Your task to perform on an android device: open app "ColorNote Notepad Notes" Image 0: 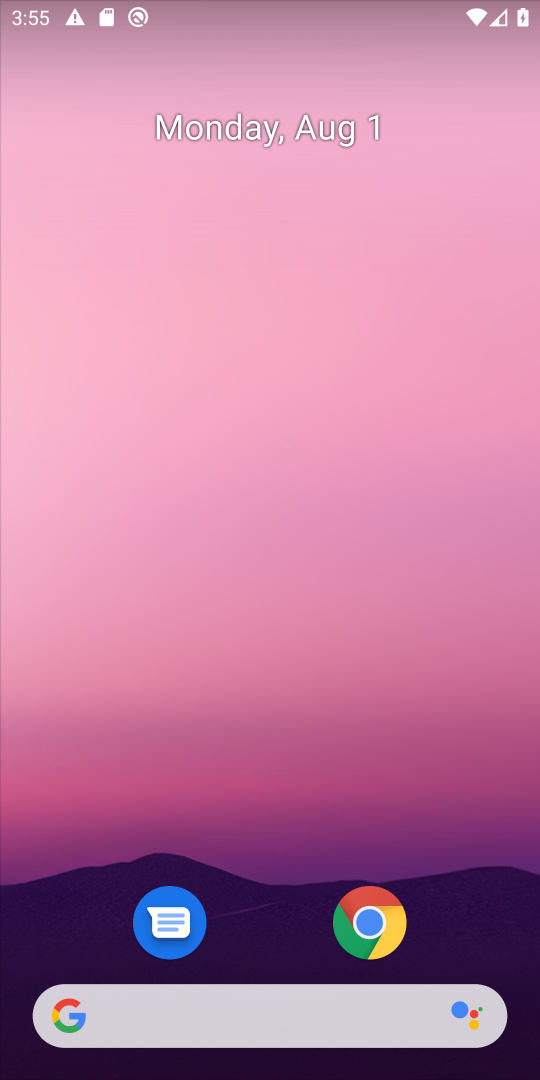
Step 0: drag from (300, 940) to (298, 25)
Your task to perform on an android device: open app "ColorNote Notepad Notes" Image 1: 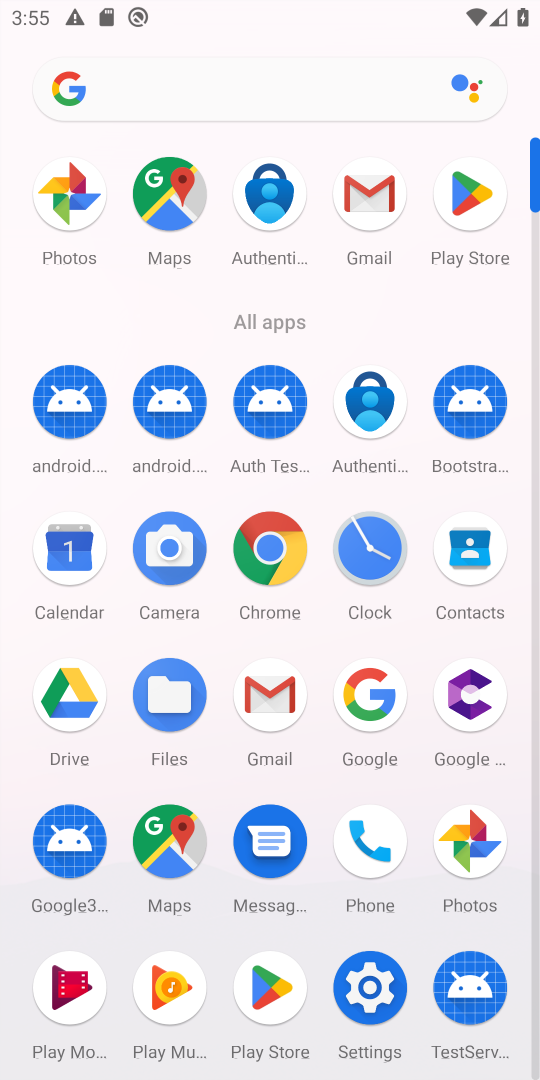
Step 1: click (467, 204)
Your task to perform on an android device: open app "ColorNote Notepad Notes" Image 2: 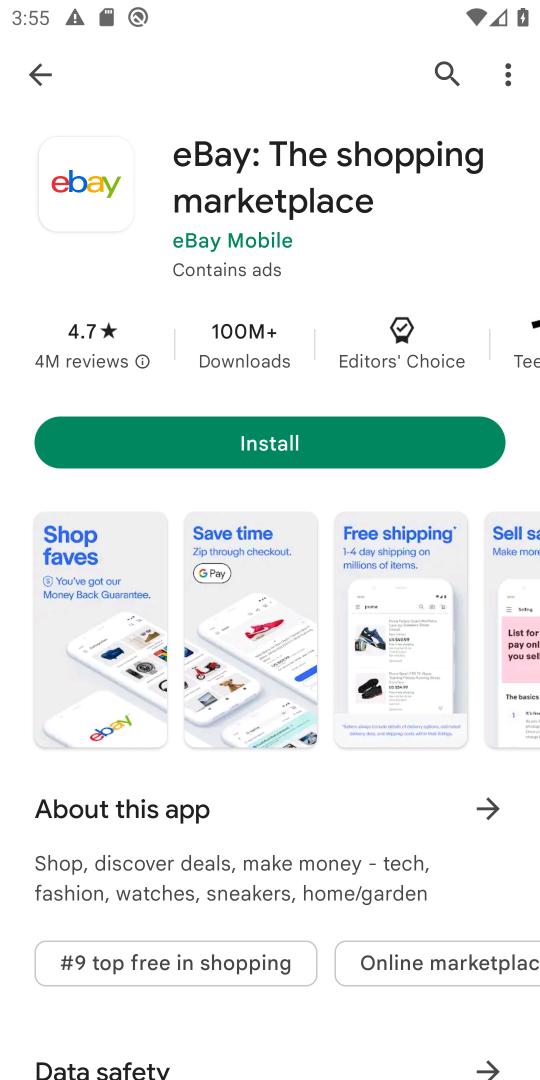
Step 2: click (443, 64)
Your task to perform on an android device: open app "ColorNote Notepad Notes" Image 3: 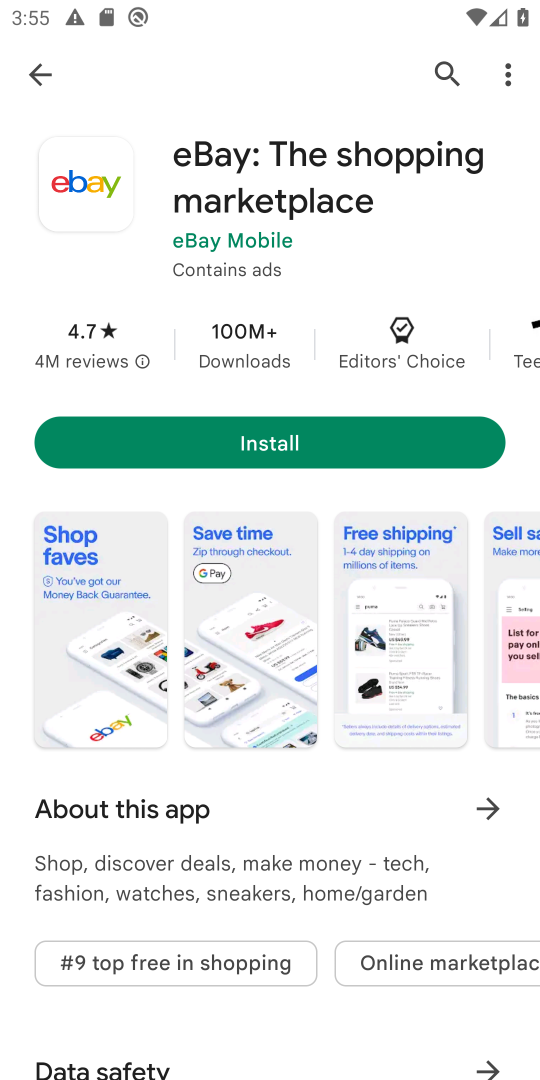
Step 3: click (443, 71)
Your task to perform on an android device: open app "ColorNote Notepad Notes" Image 4: 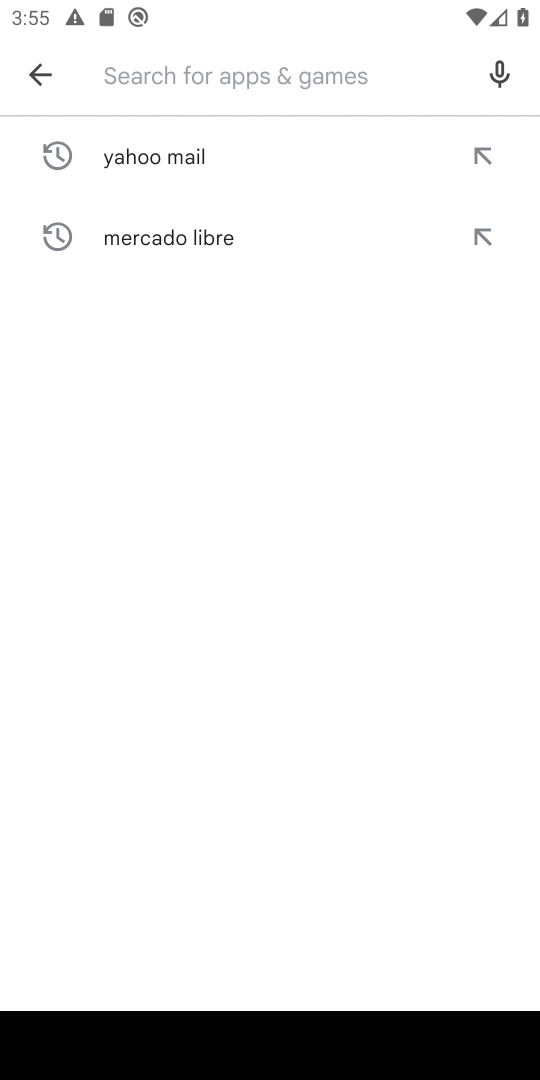
Step 4: click (320, 84)
Your task to perform on an android device: open app "ColorNote Notepad Notes" Image 5: 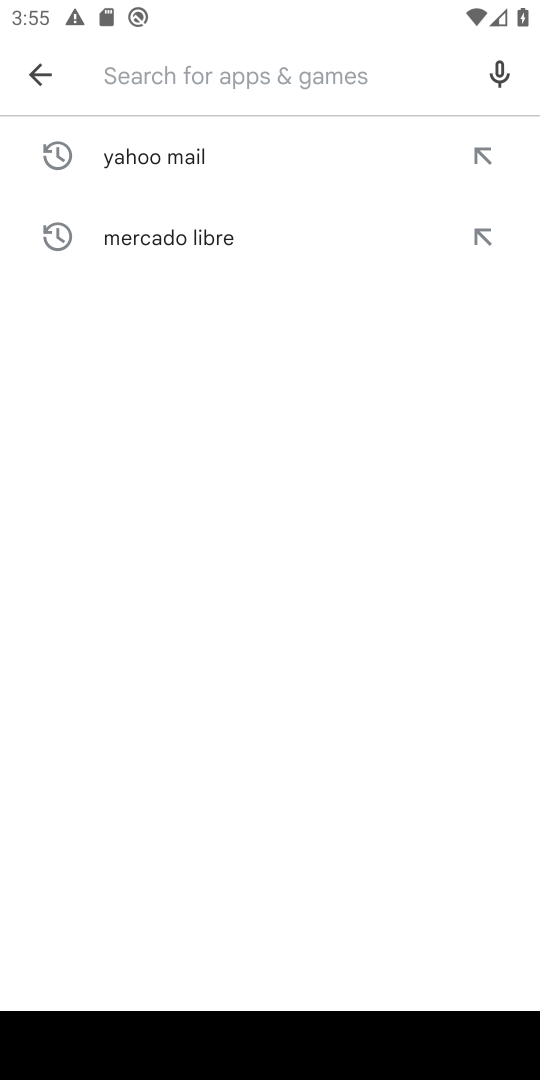
Step 5: type "ColorNote Notepad Notes"
Your task to perform on an android device: open app "ColorNote Notepad Notes" Image 6: 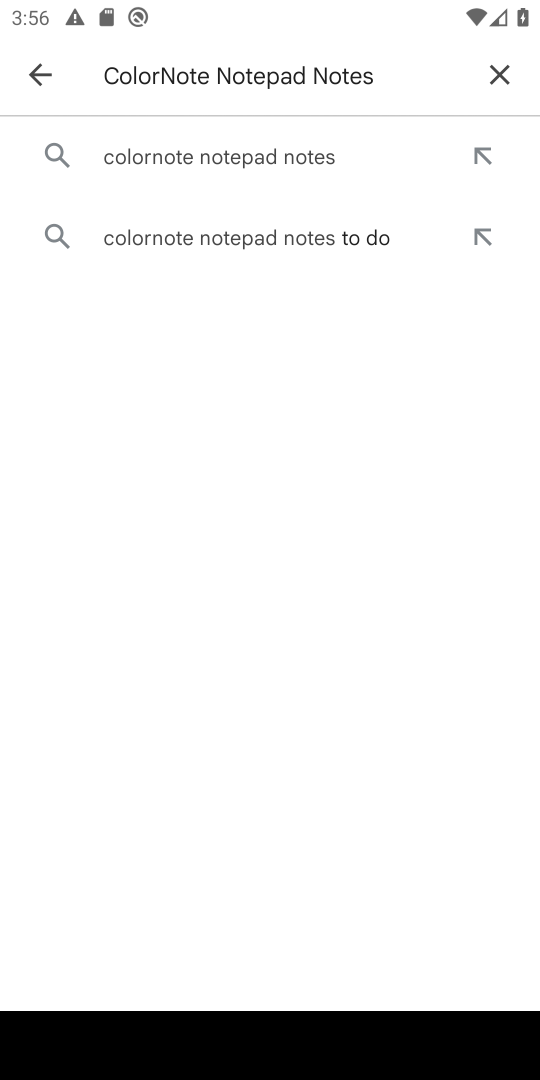
Step 6: click (189, 158)
Your task to perform on an android device: open app "ColorNote Notepad Notes" Image 7: 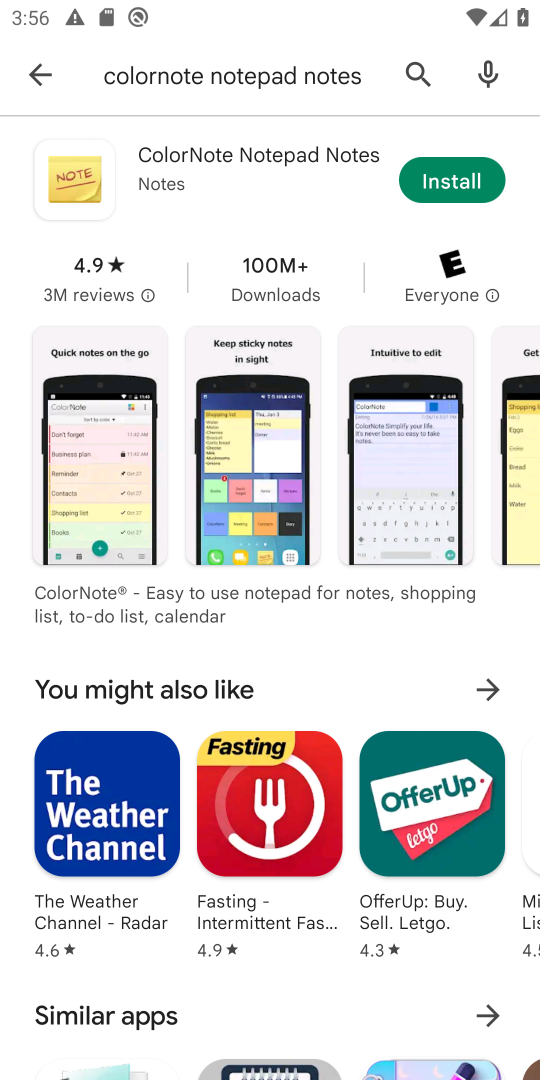
Step 7: task complete